Your task to perform on an android device: install app "WhatsApp Messenger" Image 0: 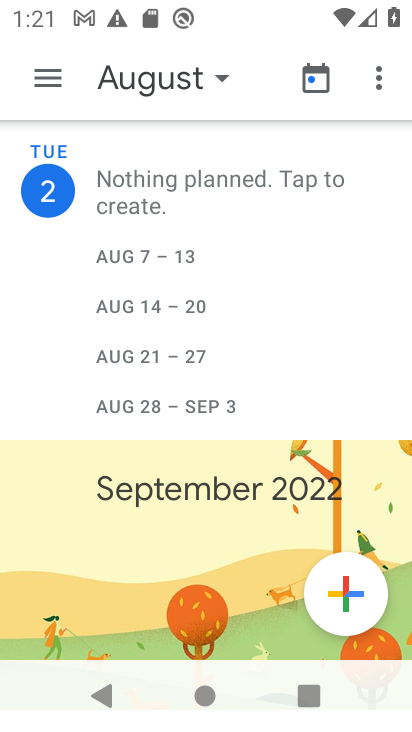
Step 0: press home button
Your task to perform on an android device: install app "WhatsApp Messenger" Image 1: 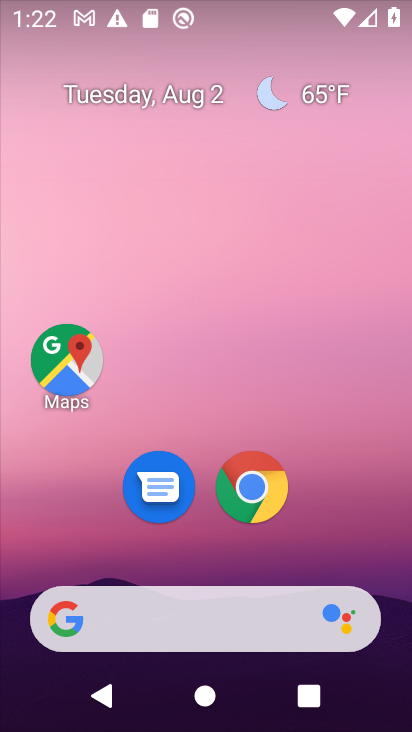
Step 1: drag from (213, 645) to (278, 108)
Your task to perform on an android device: install app "WhatsApp Messenger" Image 2: 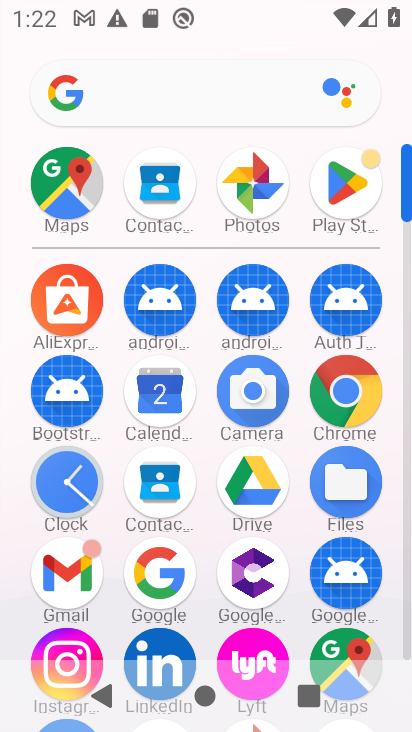
Step 2: click (329, 196)
Your task to perform on an android device: install app "WhatsApp Messenger" Image 3: 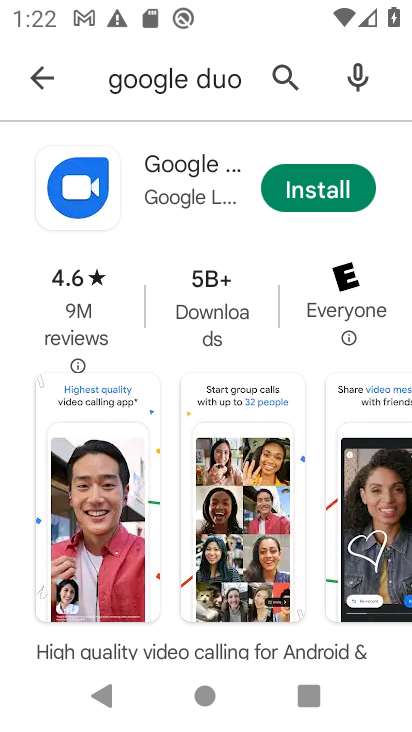
Step 3: click (39, 68)
Your task to perform on an android device: install app "WhatsApp Messenger" Image 4: 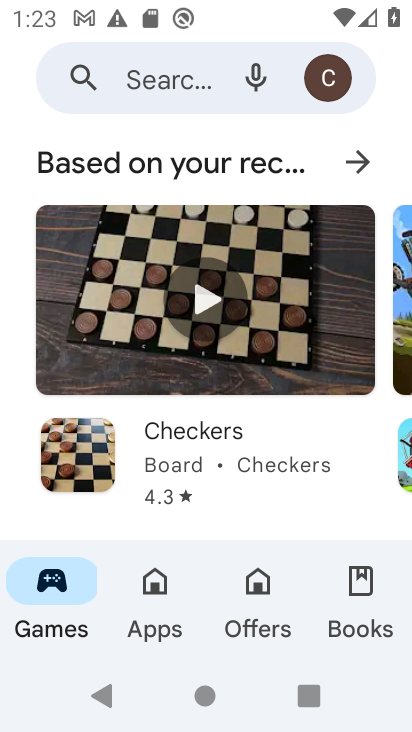
Step 4: click (105, 71)
Your task to perform on an android device: install app "WhatsApp Messenger" Image 5: 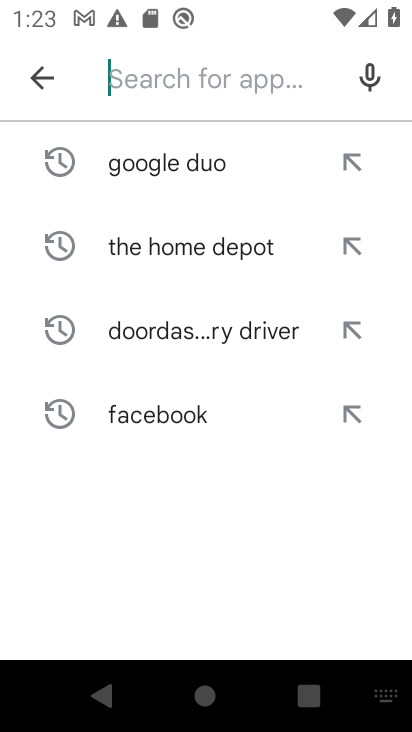
Step 5: type "WhatsApp Messenger"
Your task to perform on an android device: install app "WhatsApp Messenger" Image 6: 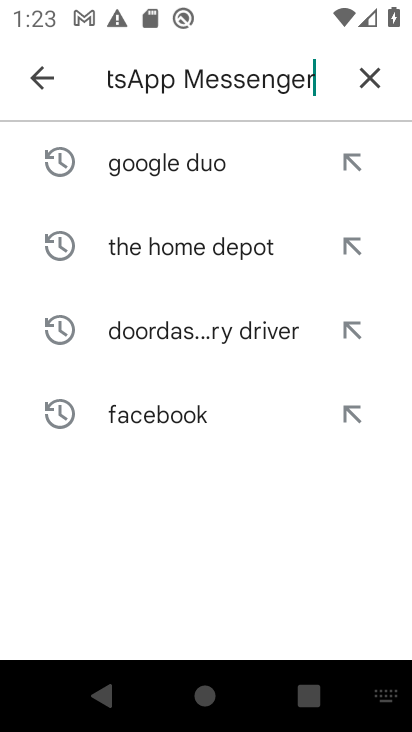
Step 6: type ""
Your task to perform on an android device: install app "WhatsApp Messenger" Image 7: 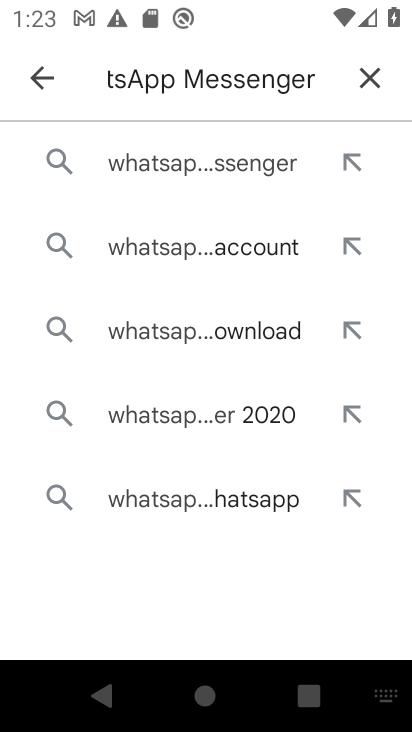
Step 7: click (175, 162)
Your task to perform on an android device: install app "WhatsApp Messenger" Image 8: 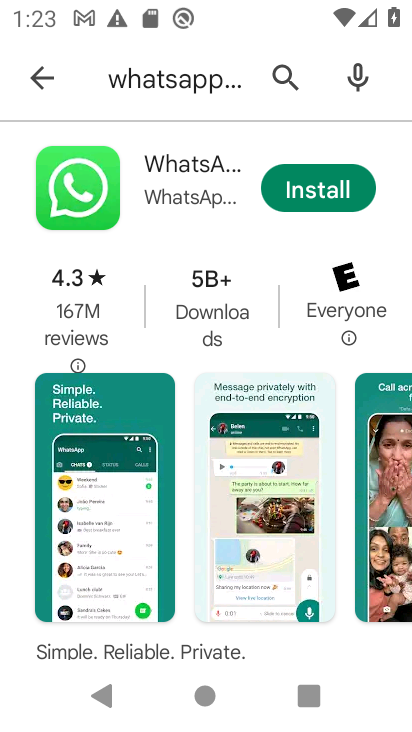
Step 8: click (322, 192)
Your task to perform on an android device: install app "WhatsApp Messenger" Image 9: 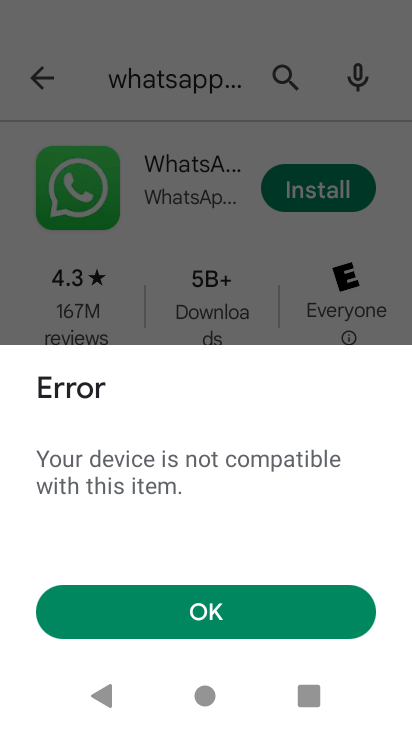
Step 9: click (220, 618)
Your task to perform on an android device: install app "WhatsApp Messenger" Image 10: 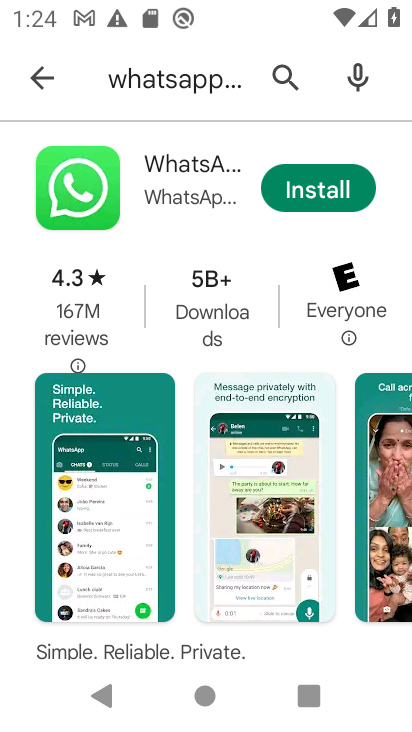
Step 10: click (302, 181)
Your task to perform on an android device: install app "WhatsApp Messenger" Image 11: 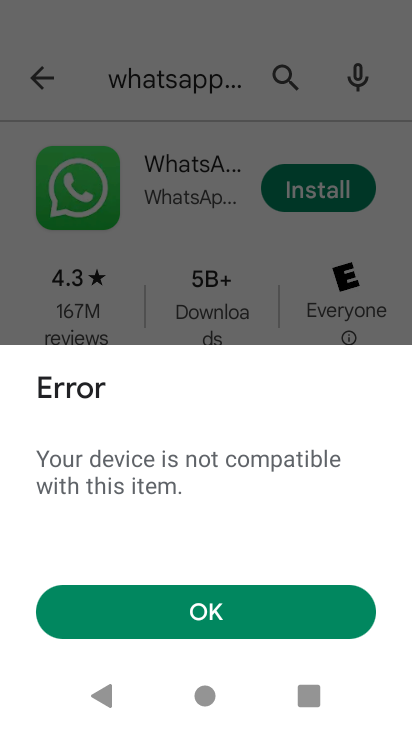
Step 11: task complete